Your task to perform on an android device: Search for pizza restaurants on Maps Image 0: 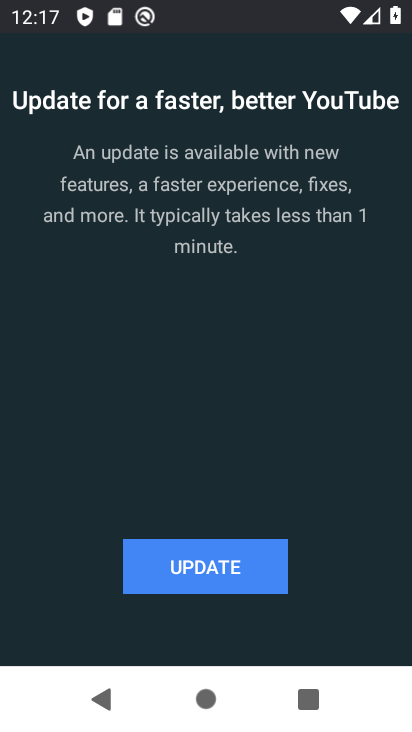
Step 0: press home button
Your task to perform on an android device: Search for pizza restaurants on Maps Image 1: 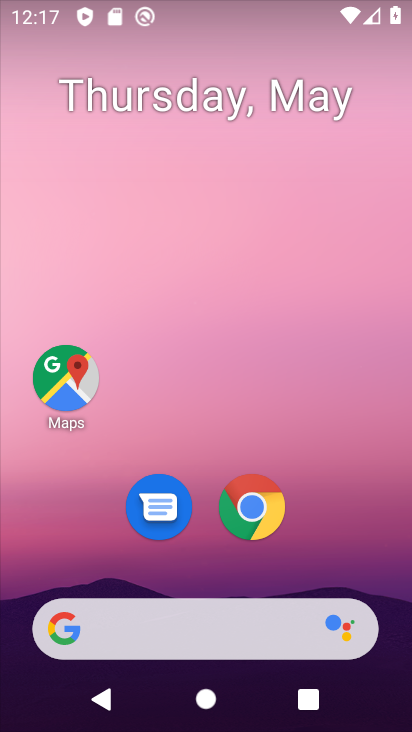
Step 1: drag from (135, 593) to (136, 179)
Your task to perform on an android device: Search for pizza restaurants on Maps Image 2: 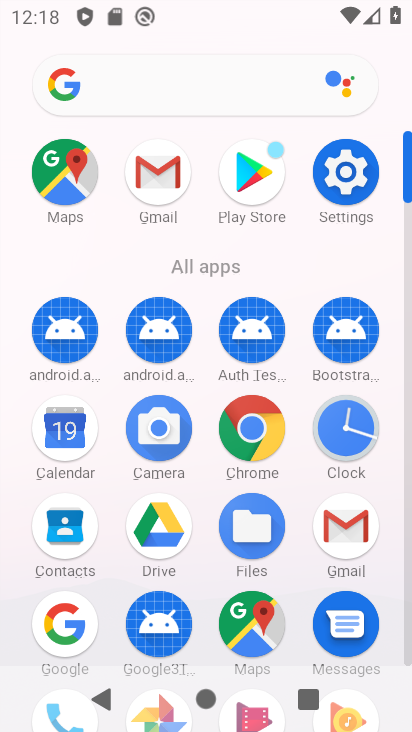
Step 2: drag from (112, 655) to (115, 322)
Your task to perform on an android device: Search for pizza restaurants on Maps Image 3: 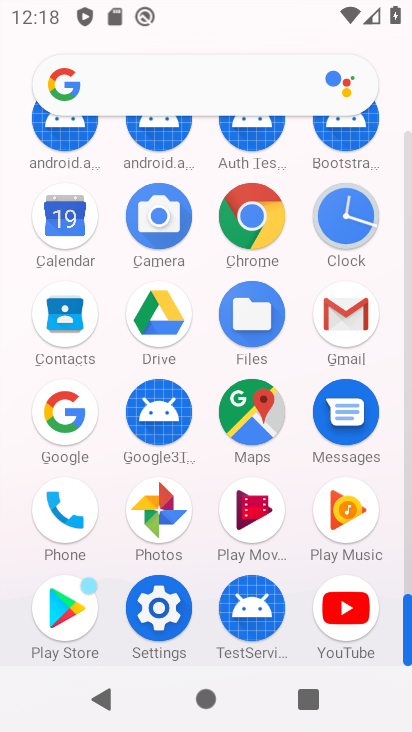
Step 3: click (241, 408)
Your task to perform on an android device: Search for pizza restaurants on Maps Image 4: 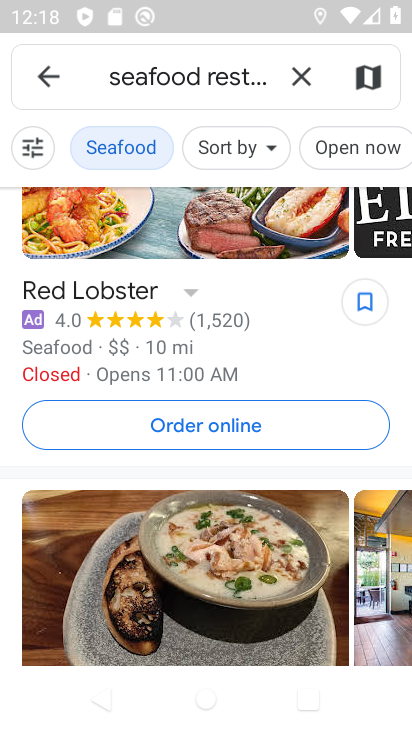
Step 4: click (301, 75)
Your task to perform on an android device: Search for pizza restaurants on Maps Image 5: 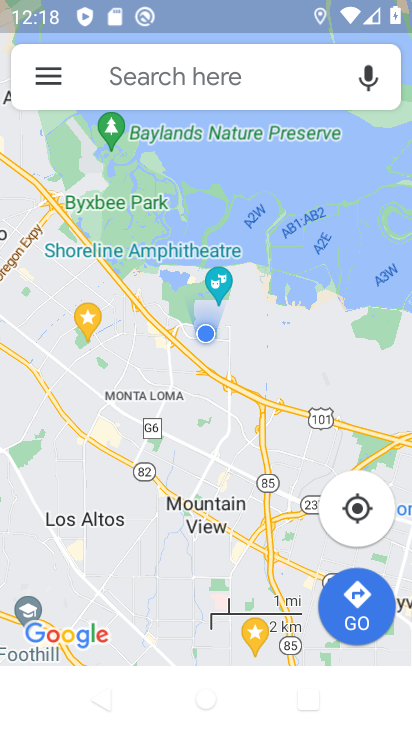
Step 5: click (182, 81)
Your task to perform on an android device: Search for pizza restaurants on Maps Image 6: 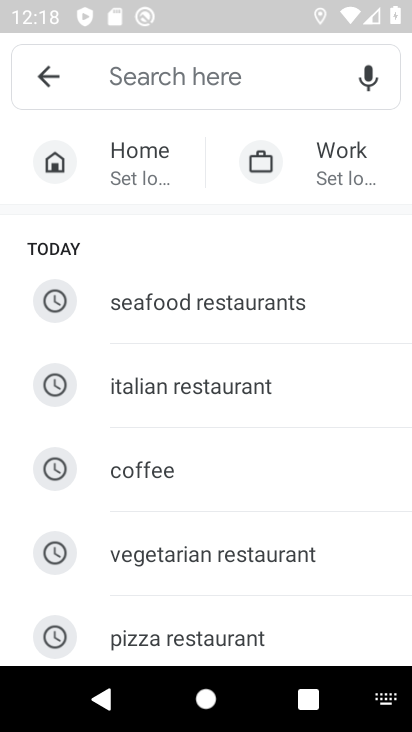
Step 6: click (189, 638)
Your task to perform on an android device: Search for pizza restaurants on Maps Image 7: 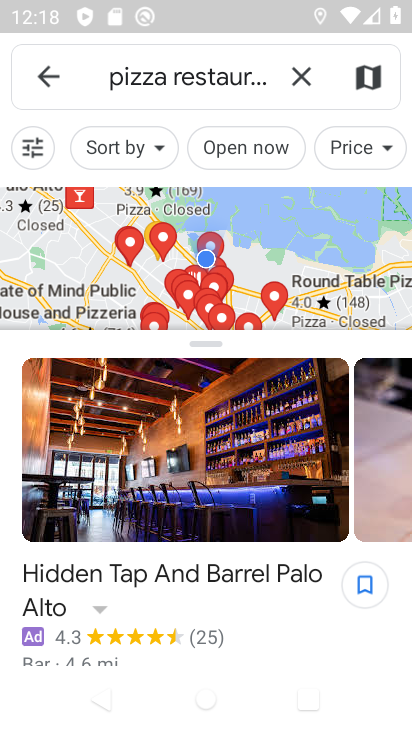
Step 7: task complete